Your task to perform on an android device: show emergency info Image 0: 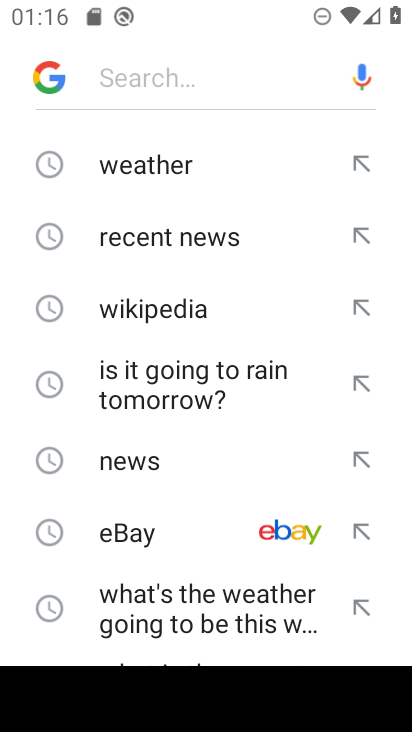
Step 0: press home button
Your task to perform on an android device: show emergency info Image 1: 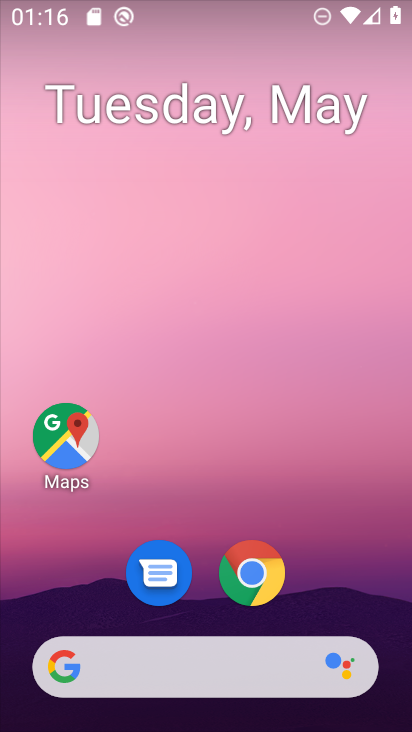
Step 1: drag from (331, 566) to (214, 28)
Your task to perform on an android device: show emergency info Image 2: 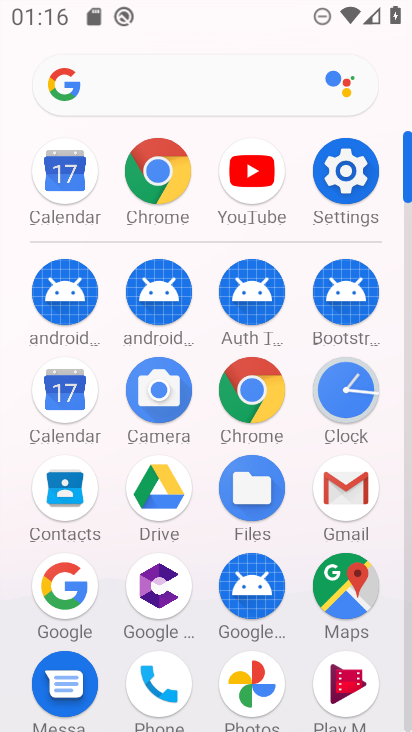
Step 2: click (347, 172)
Your task to perform on an android device: show emergency info Image 3: 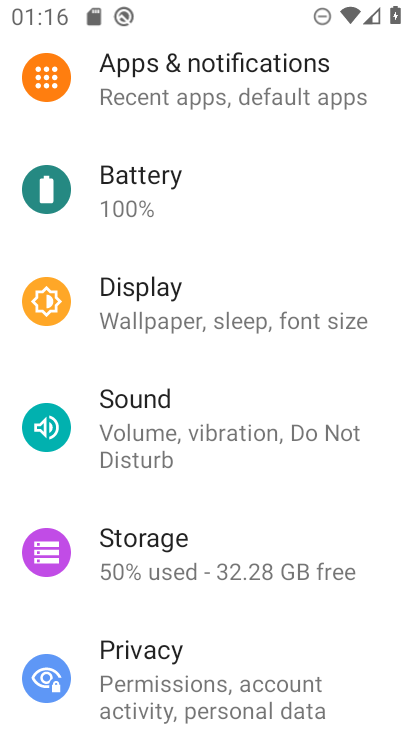
Step 3: drag from (279, 546) to (212, 44)
Your task to perform on an android device: show emergency info Image 4: 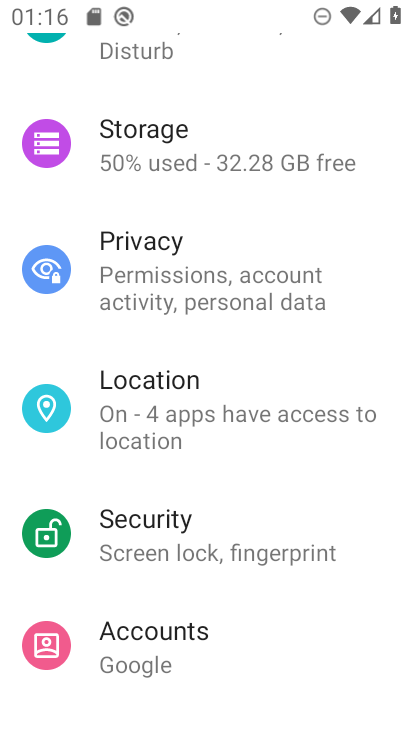
Step 4: drag from (212, 518) to (219, 78)
Your task to perform on an android device: show emergency info Image 5: 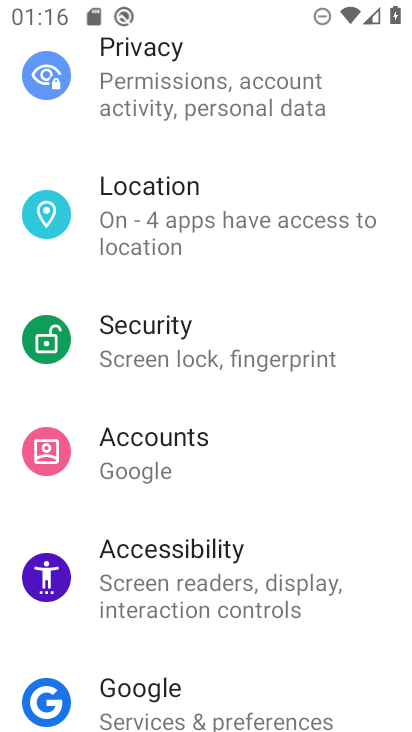
Step 5: drag from (234, 612) to (205, 121)
Your task to perform on an android device: show emergency info Image 6: 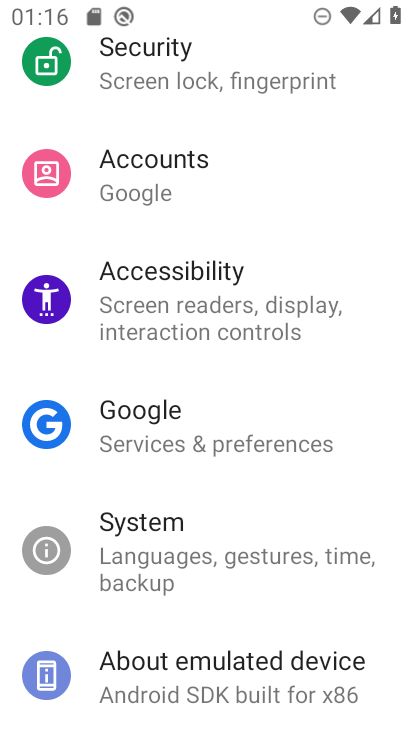
Step 6: click (230, 644)
Your task to perform on an android device: show emergency info Image 7: 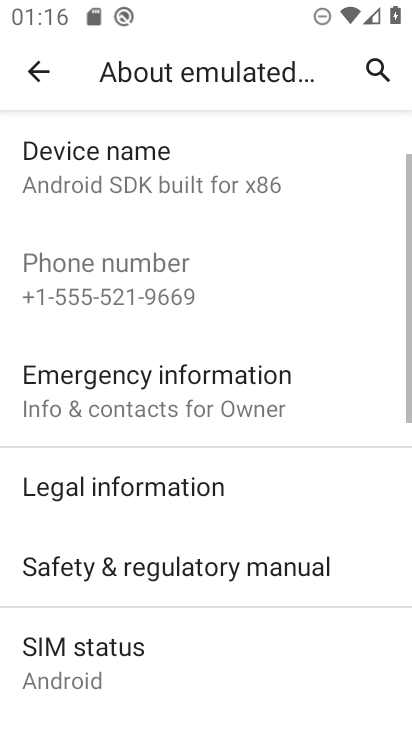
Step 7: click (224, 415)
Your task to perform on an android device: show emergency info Image 8: 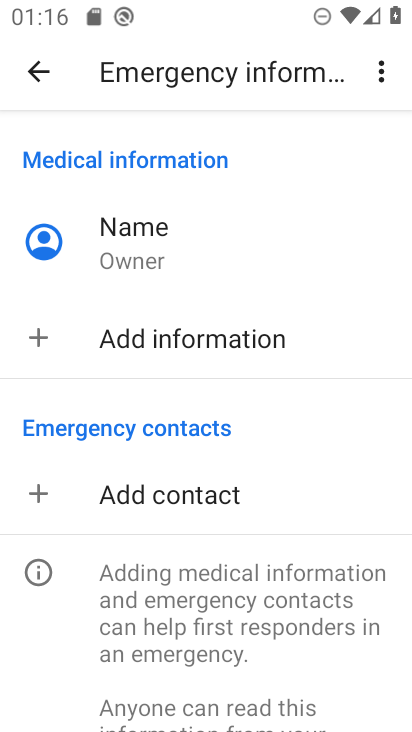
Step 8: task complete